Your task to perform on an android device: delete a single message in the gmail app Image 0: 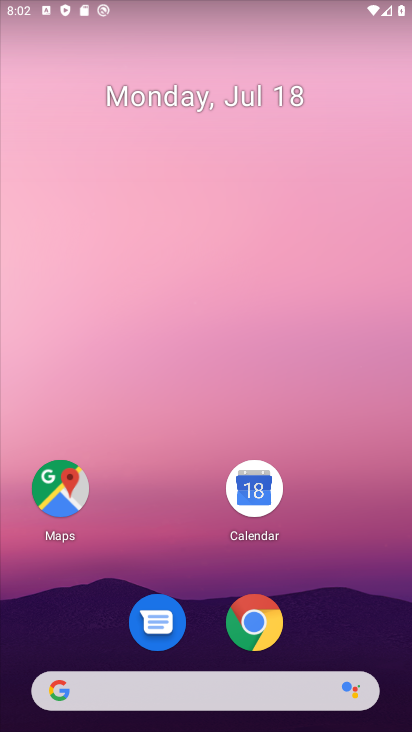
Step 0: click (399, 315)
Your task to perform on an android device: delete a single message in the gmail app Image 1: 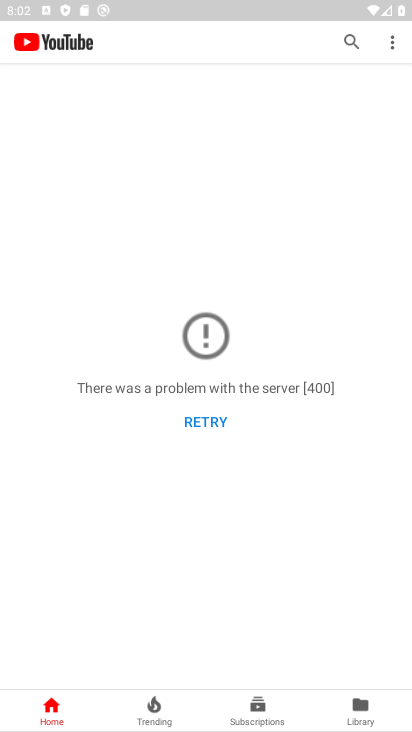
Step 1: press home button
Your task to perform on an android device: delete a single message in the gmail app Image 2: 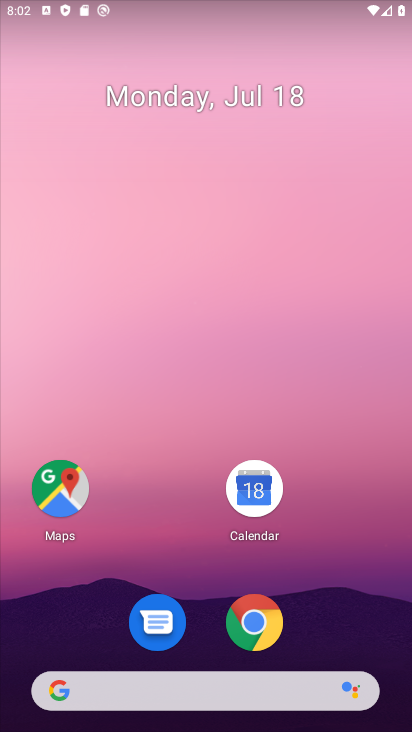
Step 2: drag from (389, 409) to (52, 370)
Your task to perform on an android device: delete a single message in the gmail app Image 3: 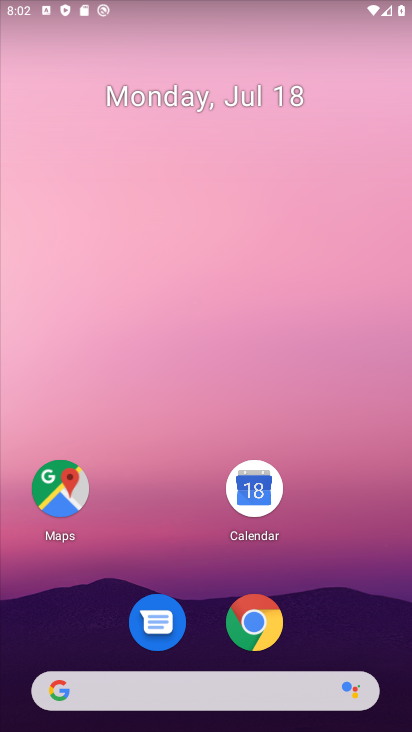
Step 3: drag from (393, 298) to (21, 324)
Your task to perform on an android device: delete a single message in the gmail app Image 4: 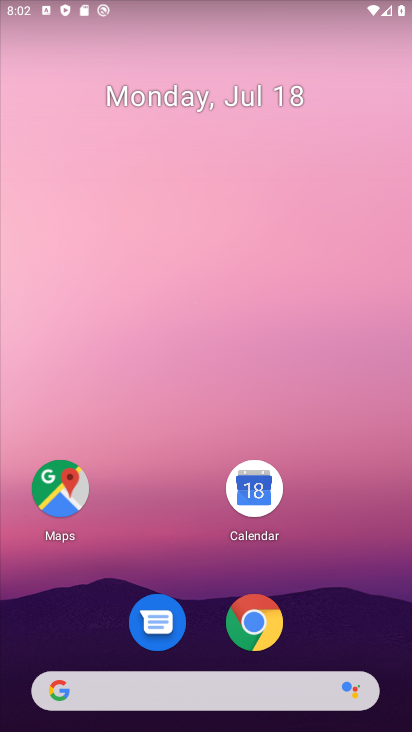
Step 4: drag from (395, 300) to (10, 337)
Your task to perform on an android device: delete a single message in the gmail app Image 5: 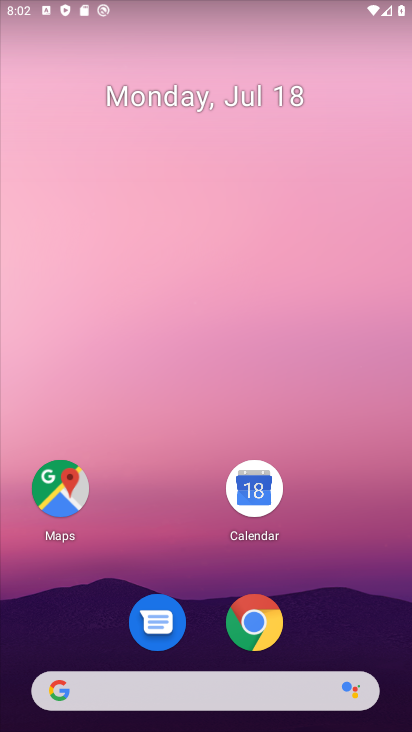
Step 5: drag from (21, 327) to (390, 338)
Your task to perform on an android device: delete a single message in the gmail app Image 6: 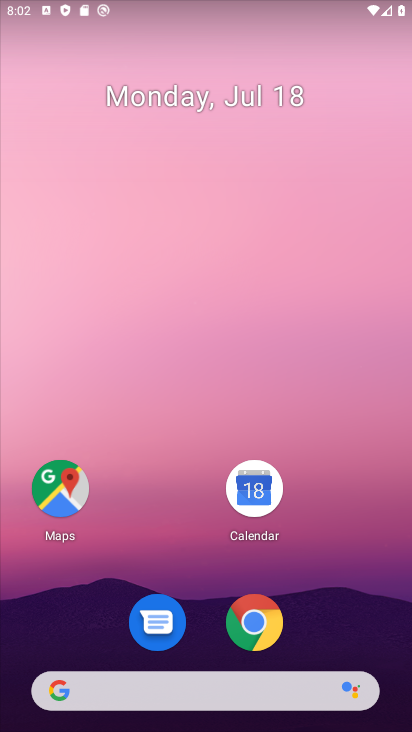
Step 6: drag from (398, 672) to (352, 277)
Your task to perform on an android device: delete a single message in the gmail app Image 7: 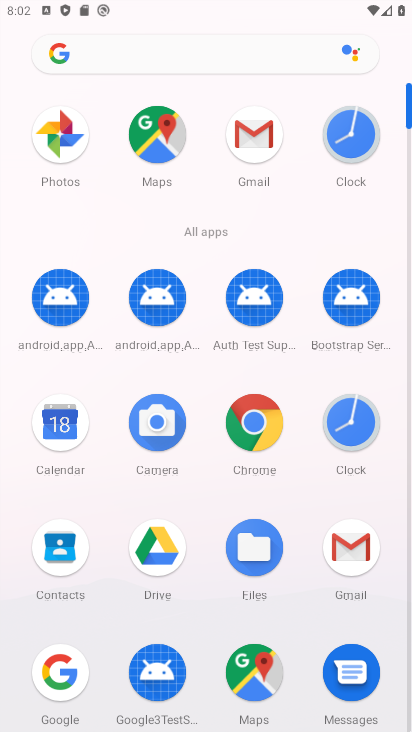
Step 7: drag from (350, 549) to (132, 455)
Your task to perform on an android device: delete a single message in the gmail app Image 8: 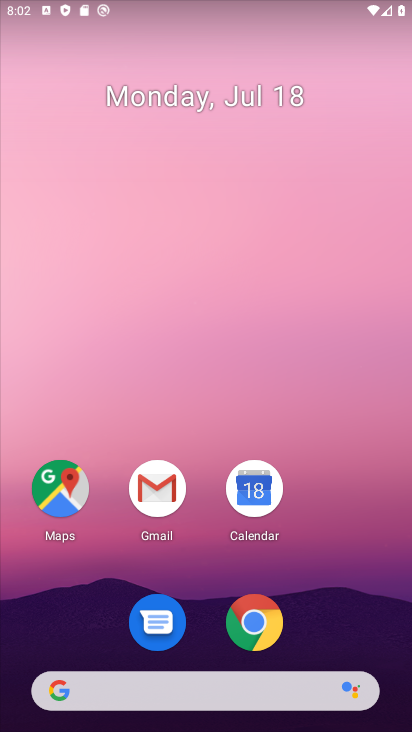
Step 8: click (157, 480)
Your task to perform on an android device: delete a single message in the gmail app Image 9: 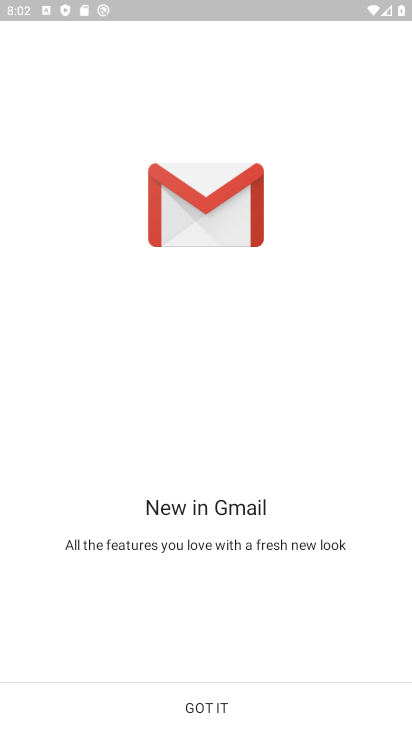
Step 9: click (196, 702)
Your task to perform on an android device: delete a single message in the gmail app Image 10: 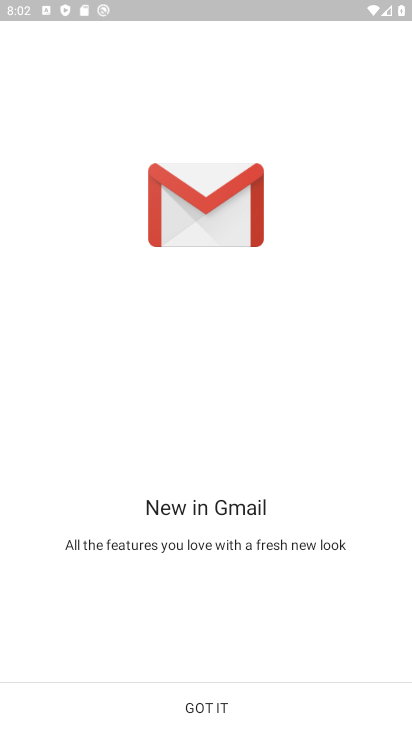
Step 10: click (196, 702)
Your task to perform on an android device: delete a single message in the gmail app Image 11: 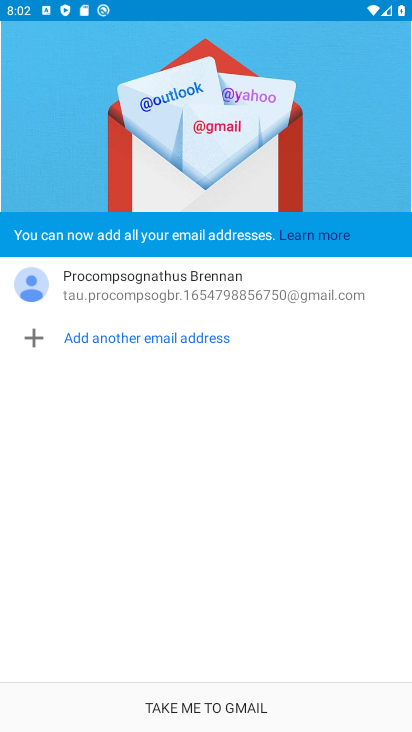
Step 11: click (196, 702)
Your task to perform on an android device: delete a single message in the gmail app Image 12: 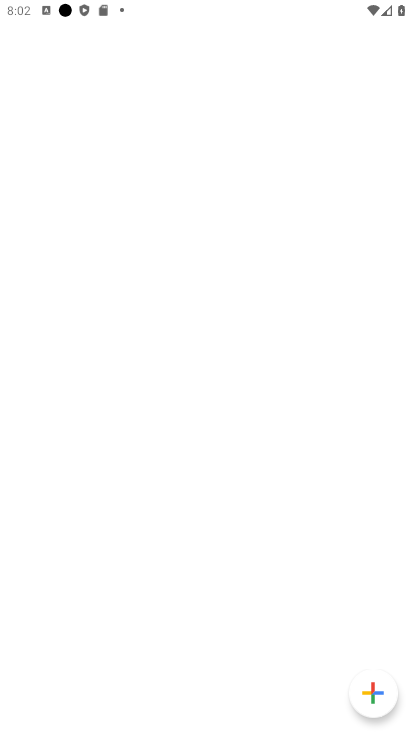
Step 12: click (196, 702)
Your task to perform on an android device: delete a single message in the gmail app Image 13: 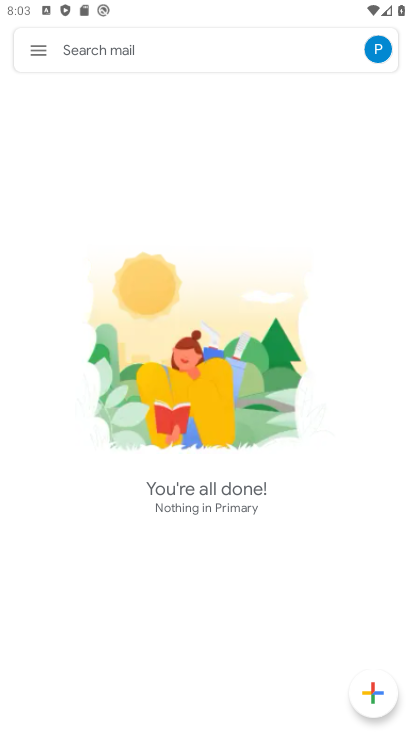
Step 13: task complete